Your task to perform on an android device: Show me popular games on the Play Store Image 0: 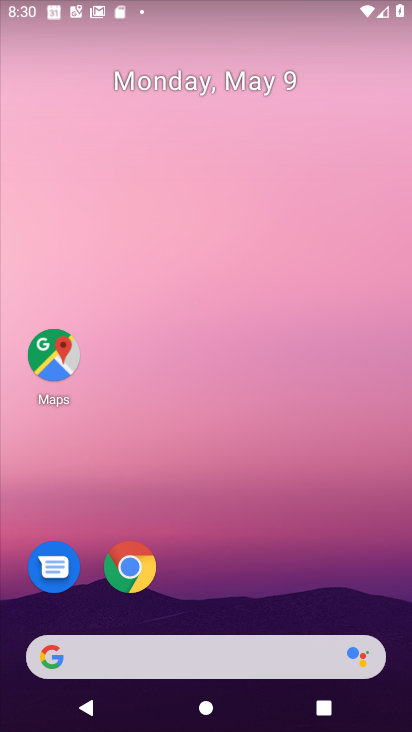
Step 0: drag from (192, 597) to (245, 78)
Your task to perform on an android device: Show me popular games on the Play Store Image 1: 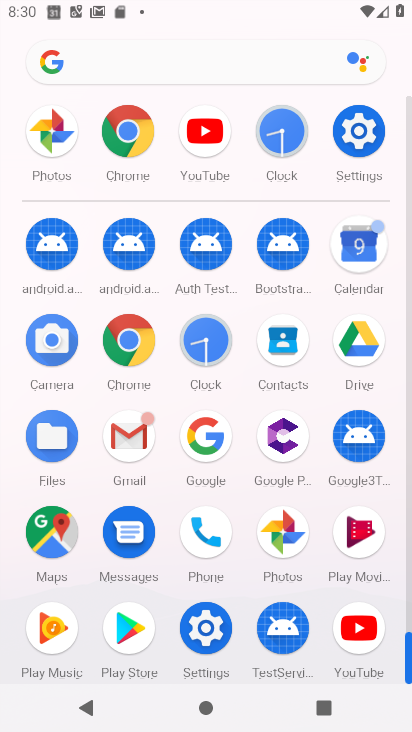
Step 1: click (117, 616)
Your task to perform on an android device: Show me popular games on the Play Store Image 2: 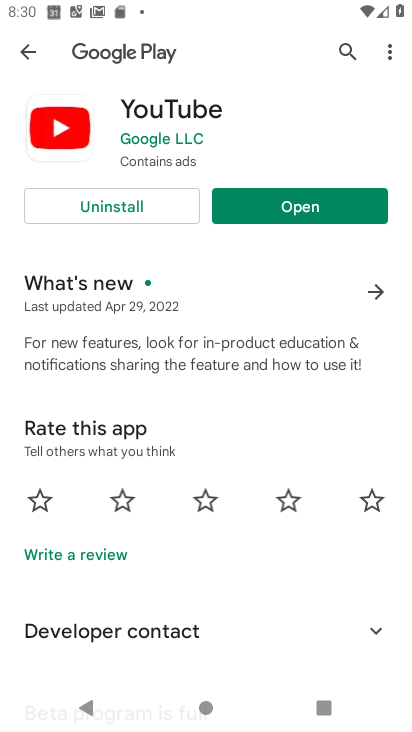
Step 2: press back button
Your task to perform on an android device: Show me popular games on the Play Store Image 3: 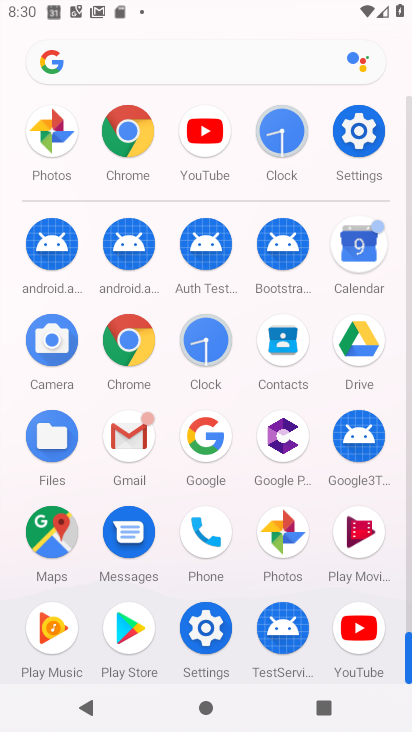
Step 3: click (122, 626)
Your task to perform on an android device: Show me popular games on the Play Store Image 4: 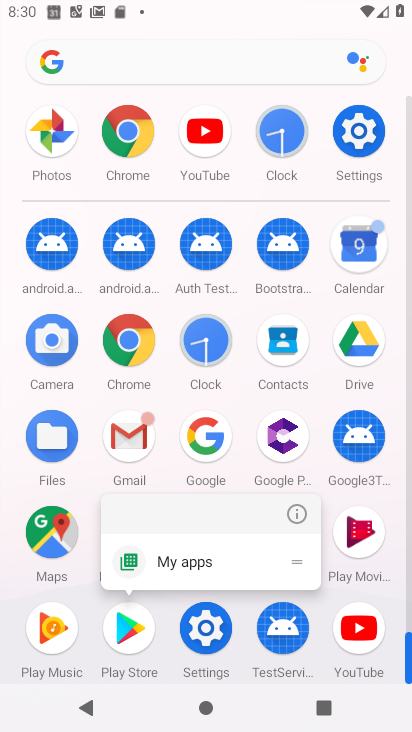
Step 4: click (292, 508)
Your task to perform on an android device: Show me popular games on the Play Store Image 5: 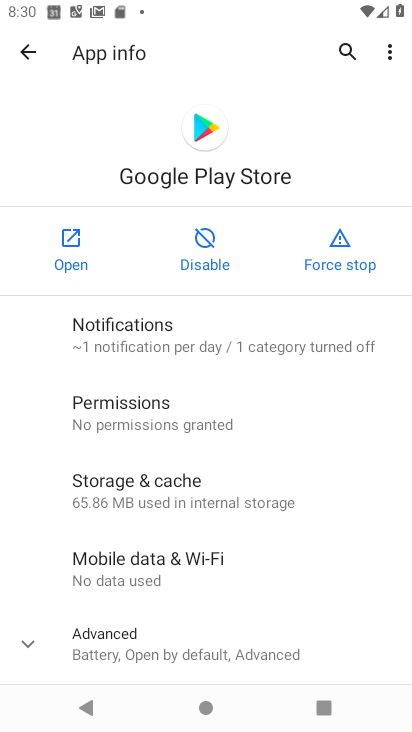
Step 5: click (55, 241)
Your task to perform on an android device: Show me popular games on the Play Store Image 6: 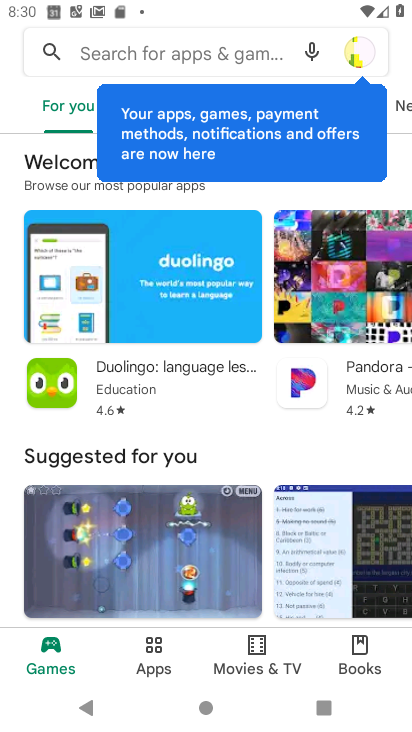
Step 6: drag from (283, 427) to (330, 174)
Your task to perform on an android device: Show me popular games on the Play Store Image 7: 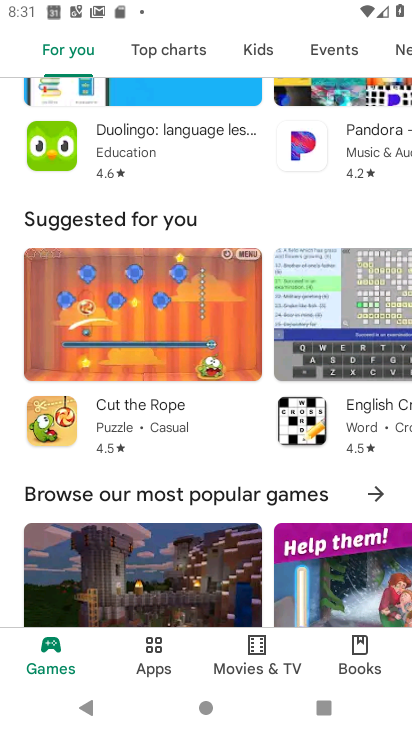
Step 7: click (370, 495)
Your task to perform on an android device: Show me popular games on the Play Store Image 8: 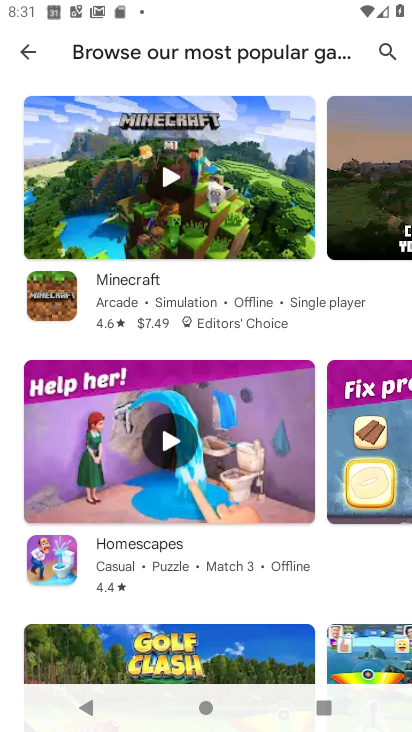
Step 8: task complete